Your task to perform on an android device: make emails show in primary in the gmail app Image 0: 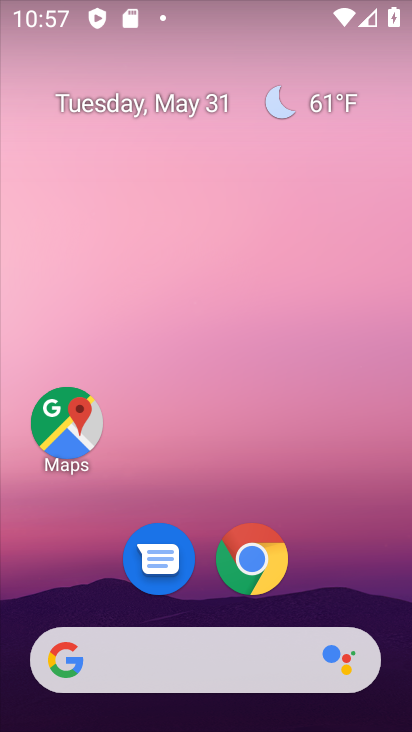
Step 0: drag from (357, 618) to (408, 501)
Your task to perform on an android device: make emails show in primary in the gmail app Image 1: 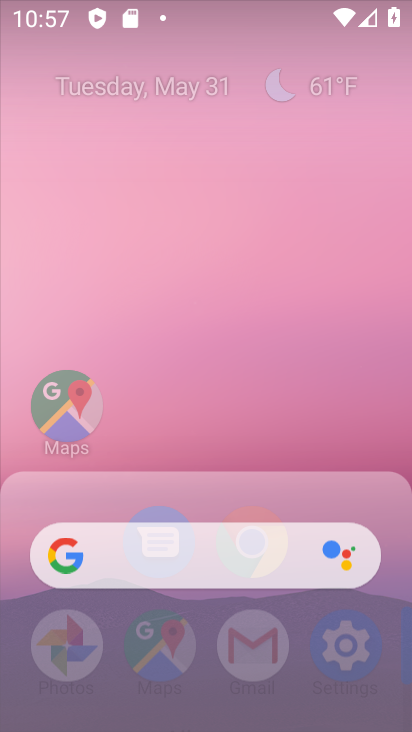
Step 1: click (355, 518)
Your task to perform on an android device: make emails show in primary in the gmail app Image 2: 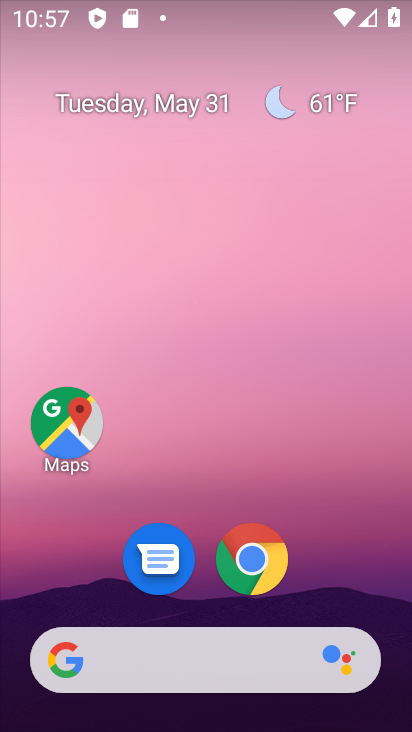
Step 2: drag from (214, 622) to (327, 526)
Your task to perform on an android device: make emails show in primary in the gmail app Image 3: 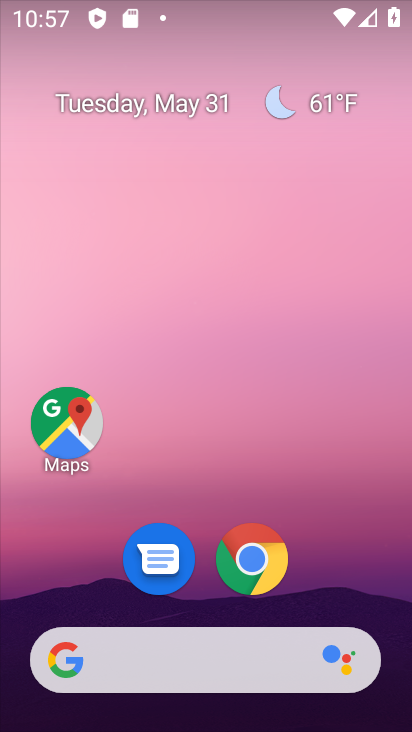
Step 3: drag from (344, 617) to (375, 16)
Your task to perform on an android device: make emails show in primary in the gmail app Image 4: 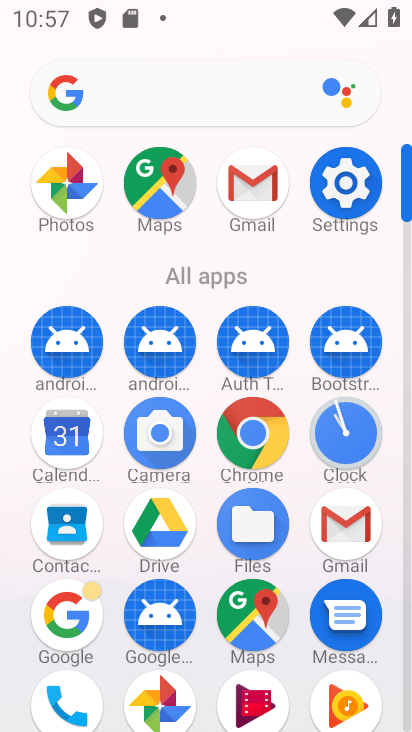
Step 4: click (344, 530)
Your task to perform on an android device: make emails show in primary in the gmail app Image 5: 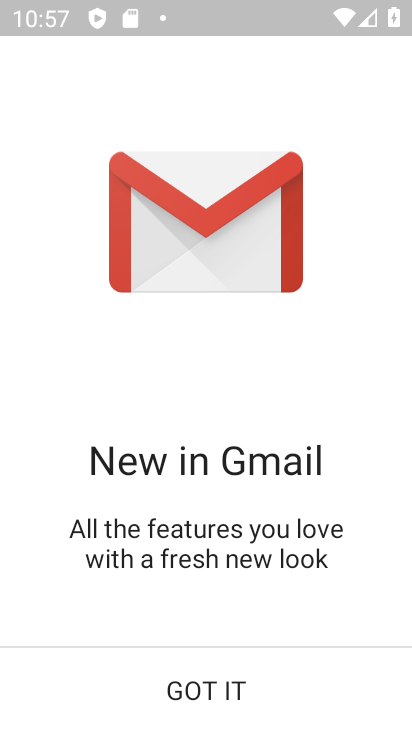
Step 5: click (299, 709)
Your task to perform on an android device: make emails show in primary in the gmail app Image 6: 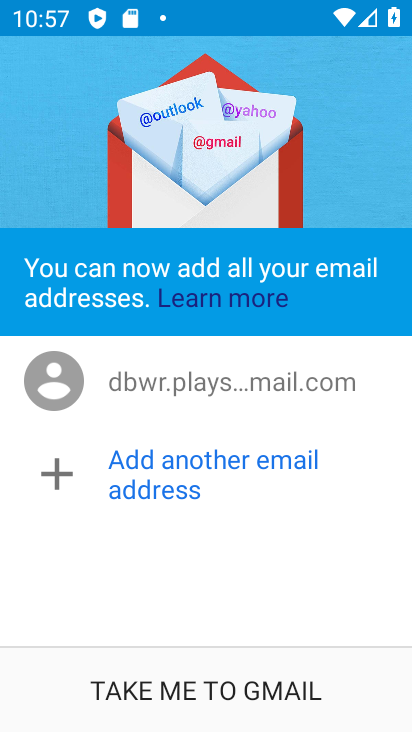
Step 6: click (329, 697)
Your task to perform on an android device: make emails show in primary in the gmail app Image 7: 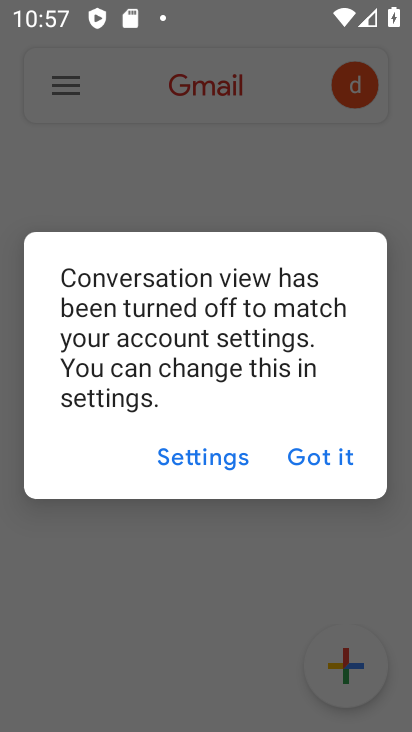
Step 7: click (317, 460)
Your task to perform on an android device: make emails show in primary in the gmail app Image 8: 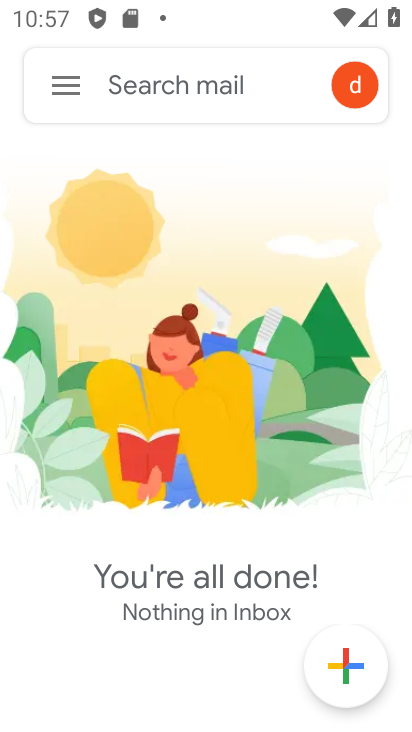
Step 8: click (68, 94)
Your task to perform on an android device: make emails show in primary in the gmail app Image 9: 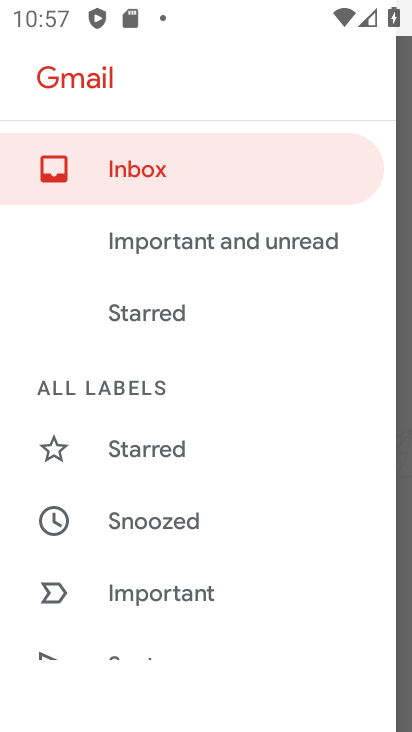
Step 9: task complete